Your task to perform on an android device: turn off data saver in the chrome app Image 0: 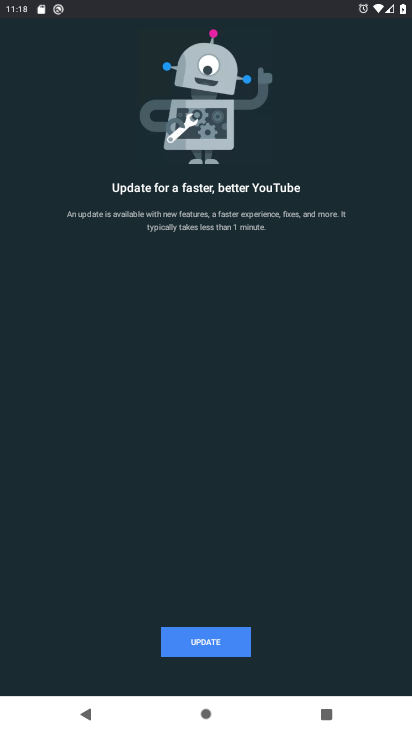
Step 0: press back button
Your task to perform on an android device: turn off data saver in the chrome app Image 1: 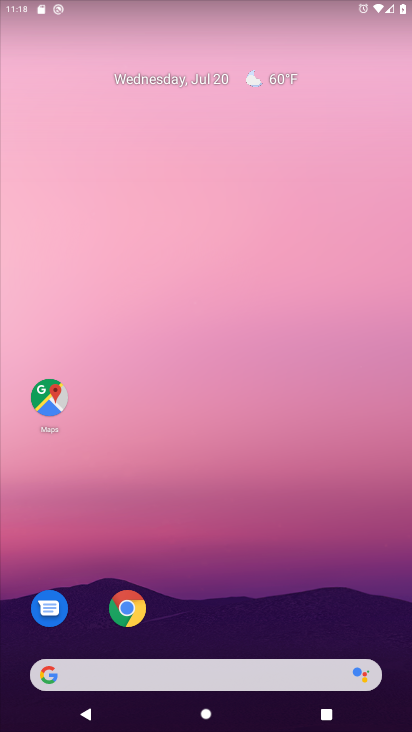
Step 1: click (121, 607)
Your task to perform on an android device: turn off data saver in the chrome app Image 2: 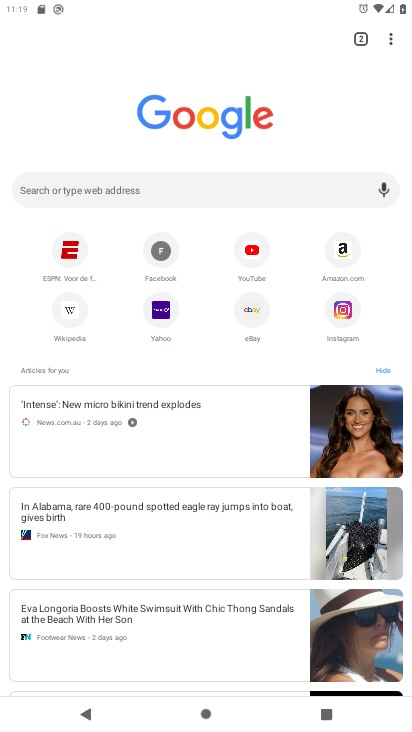
Step 2: click (389, 41)
Your task to perform on an android device: turn off data saver in the chrome app Image 3: 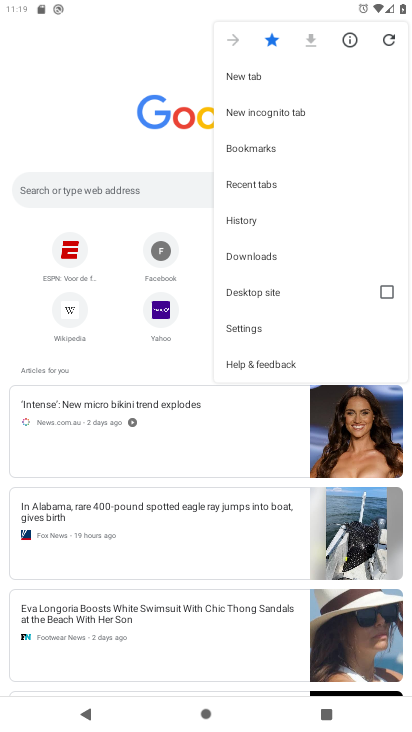
Step 3: click (262, 328)
Your task to perform on an android device: turn off data saver in the chrome app Image 4: 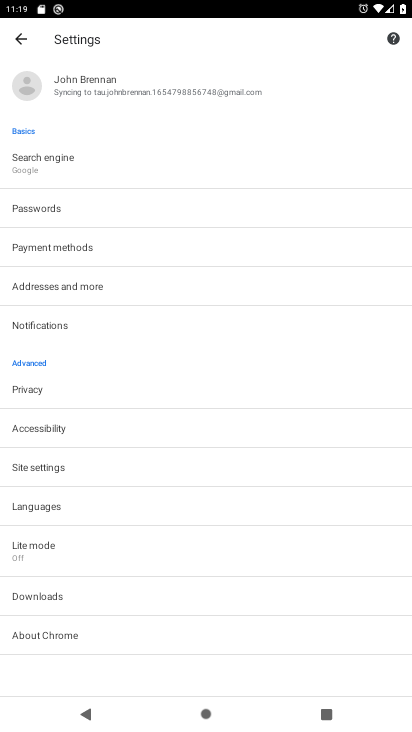
Step 4: click (65, 559)
Your task to perform on an android device: turn off data saver in the chrome app Image 5: 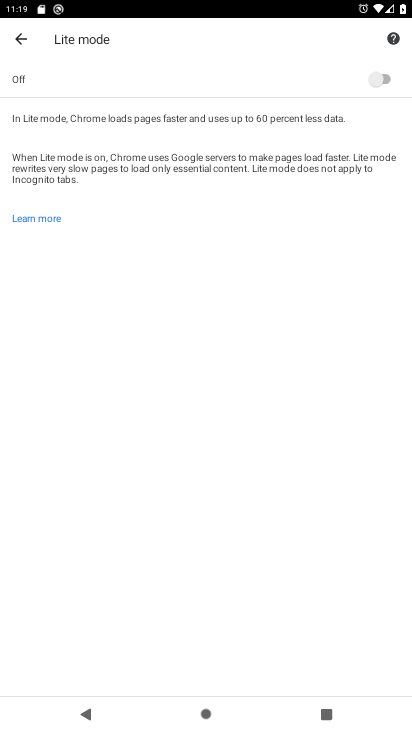
Step 5: task complete